Your task to perform on an android device: star an email in the gmail app Image 0: 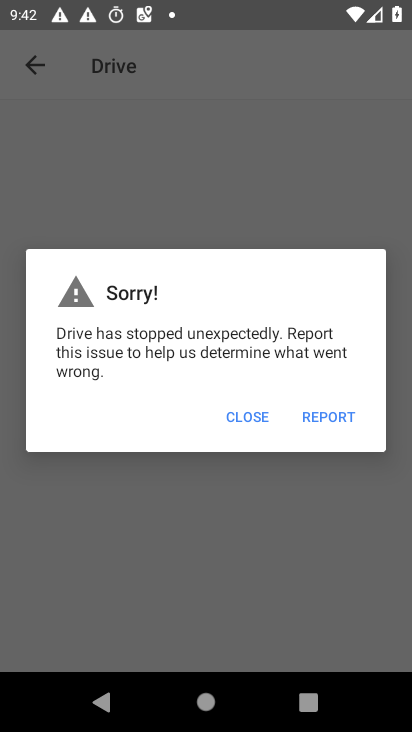
Step 0: press back button
Your task to perform on an android device: star an email in the gmail app Image 1: 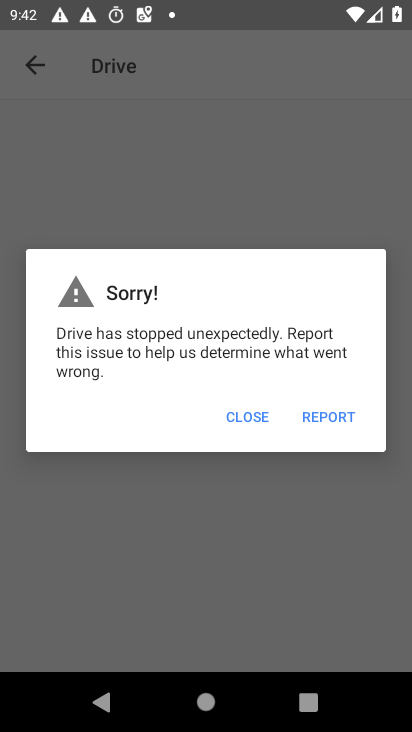
Step 1: press home button
Your task to perform on an android device: star an email in the gmail app Image 2: 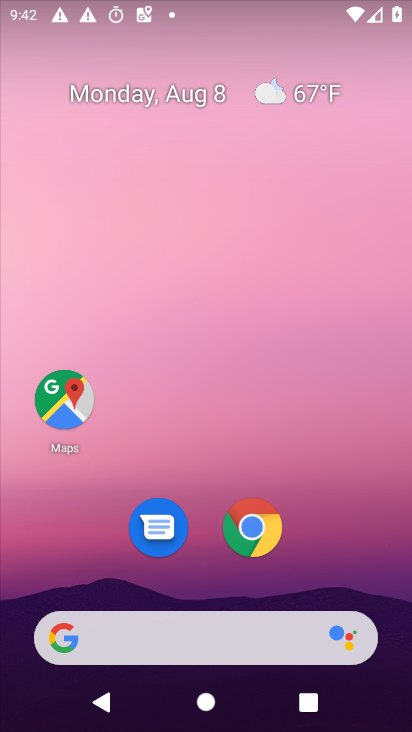
Step 2: drag from (393, 671) to (347, 177)
Your task to perform on an android device: star an email in the gmail app Image 3: 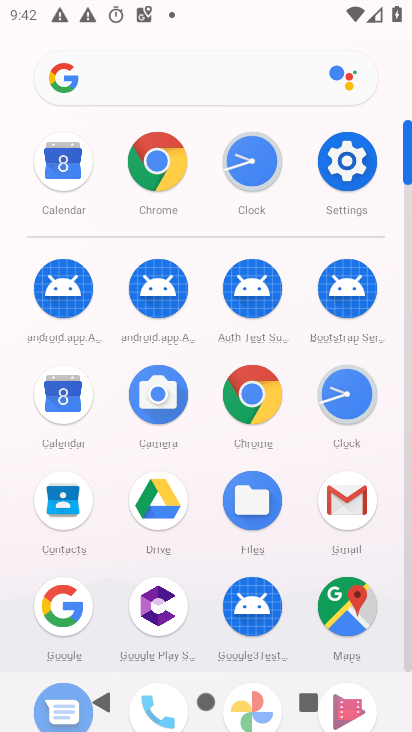
Step 3: click (343, 487)
Your task to perform on an android device: star an email in the gmail app Image 4: 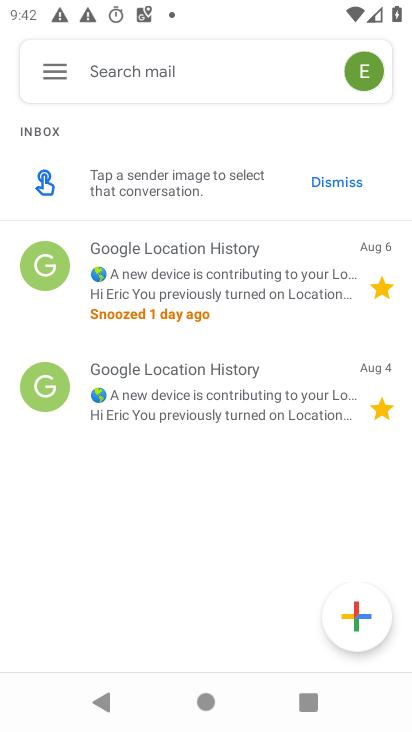
Step 4: task complete